Your task to perform on an android device: uninstall "Google Home" Image 0: 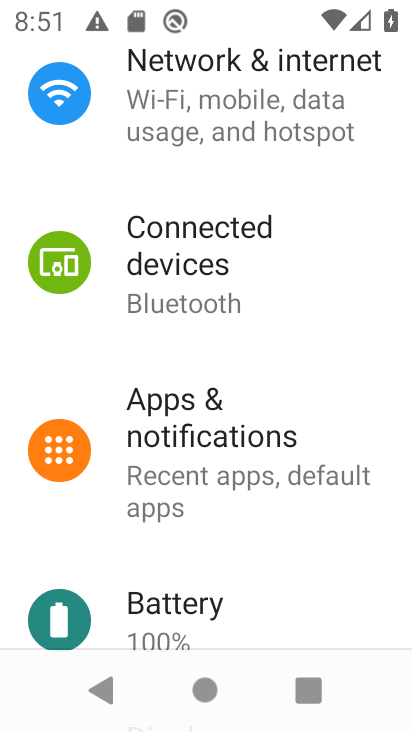
Step 0: press home button
Your task to perform on an android device: uninstall "Google Home" Image 1: 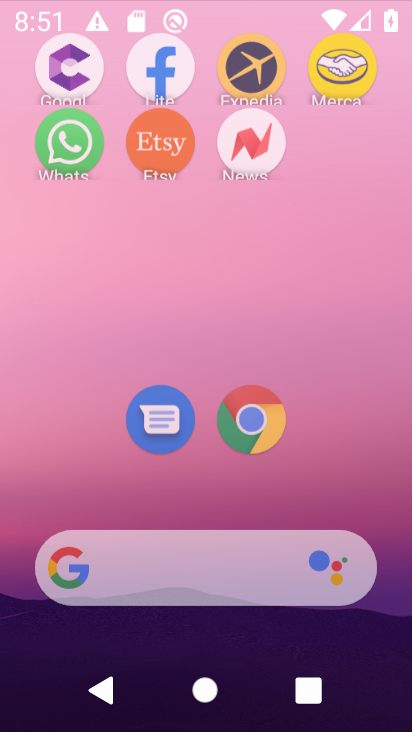
Step 1: drag from (361, 646) to (276, 69)
Your task to perform on an android device: uninstall "Google Home" Image 2: 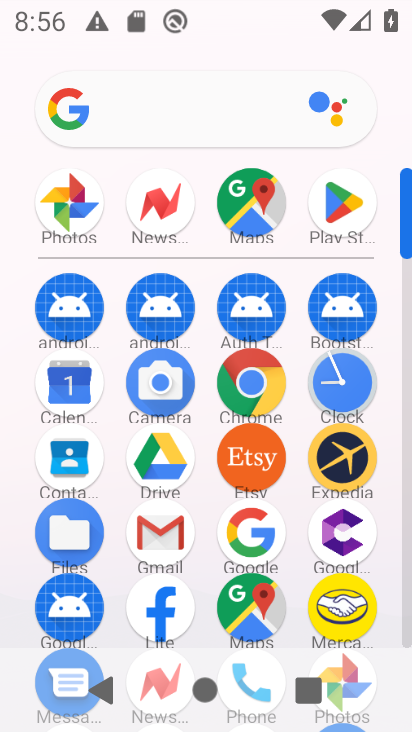
Step 2: click (361, 205)
Your task to perform on an android device: uninstall "Google Home" Image 3: 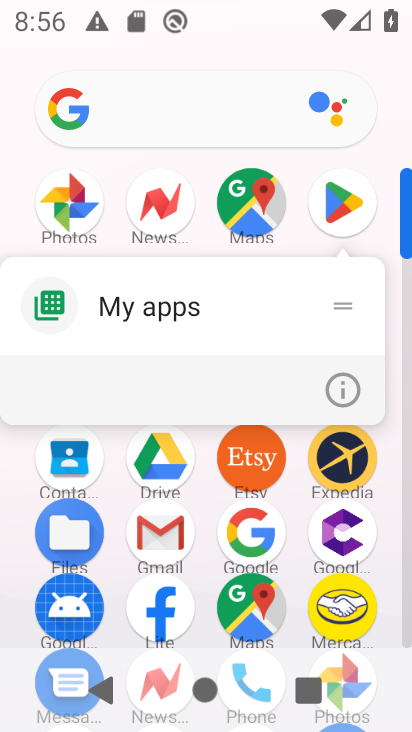
Step 3: click (326, 197)
Your task to perform on an android device: uninstall "Google Home" Image 4: 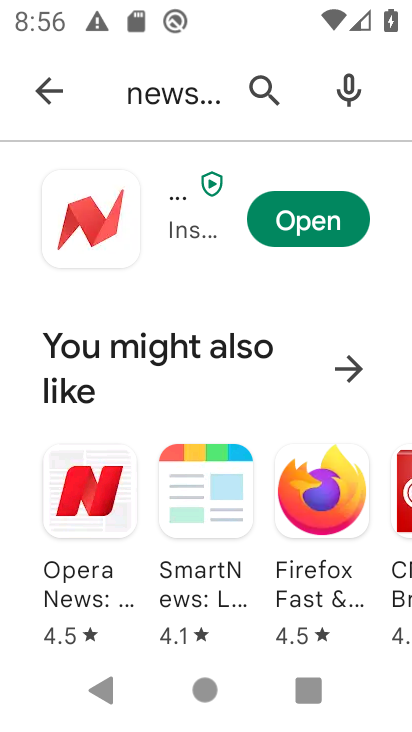
Step 4: press back button
Your task to perform on an android device: uninstall "Google Home" Image 5: 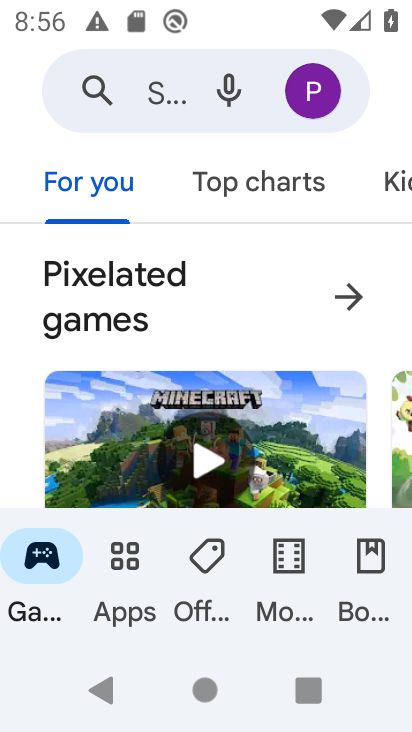
Step 5: click (146, 92)
Your task to perform on an android device: uninstall "Google Home" Image 6: 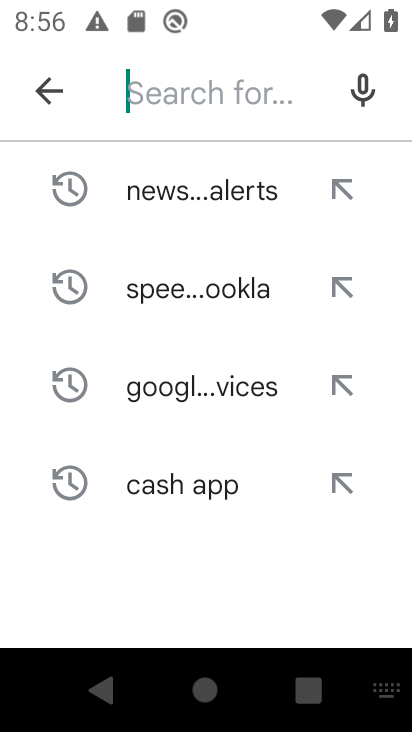
Step 6: type "Google Home"
Your task to perform on an android device: uninstall "Google Home" Image 7: 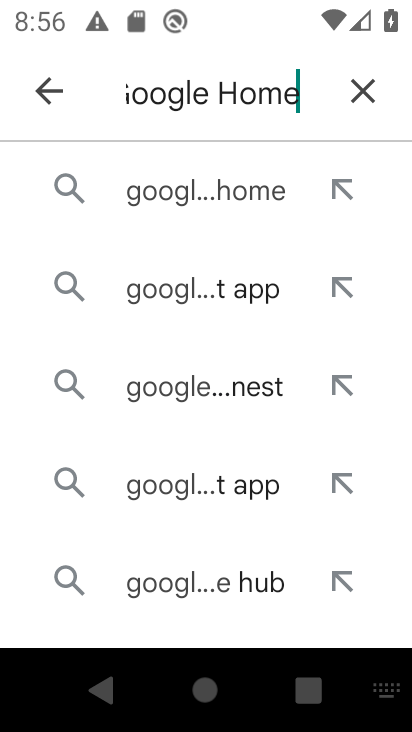
Step 7: click (165, 181)
Your task to perform on an android device: uninstall "Google Home" Image 8: 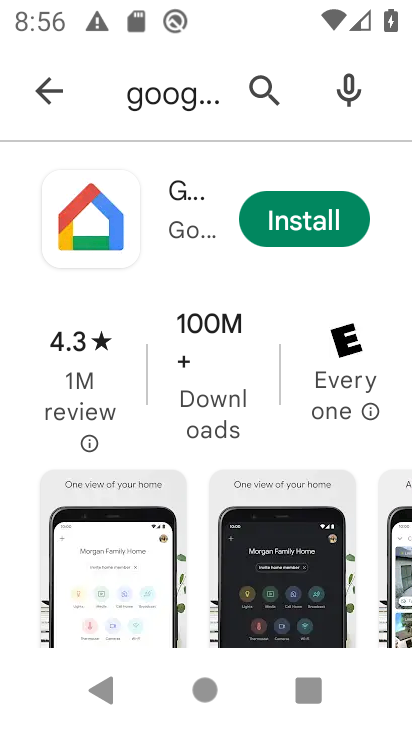
Step 8: task complete